Your task to perform on an android device: What's the top post on reddit today? Image 0: 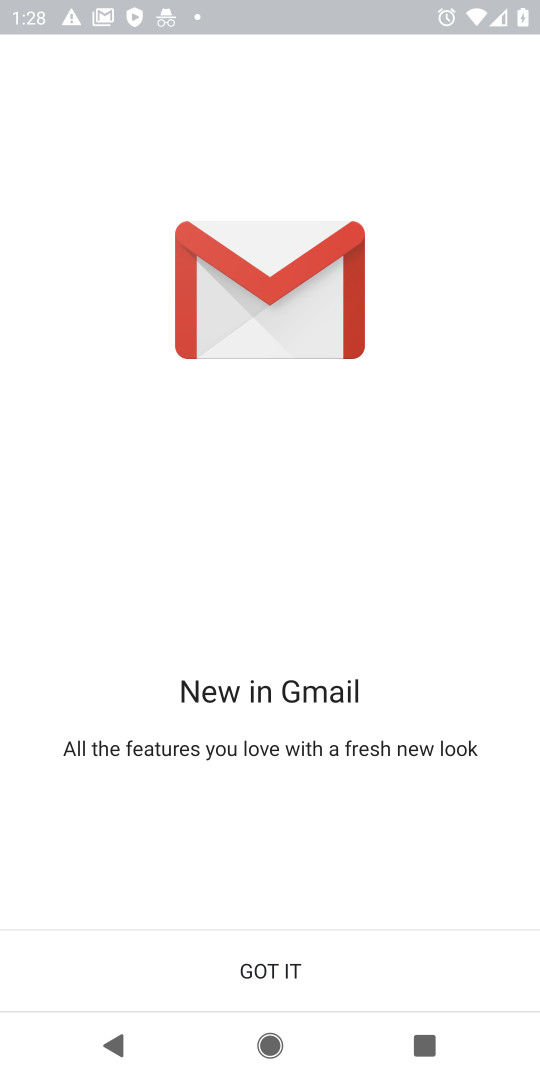
Step 0: press home button
Your task to perform on an android device: What's the top post on reddit today? Image 1: 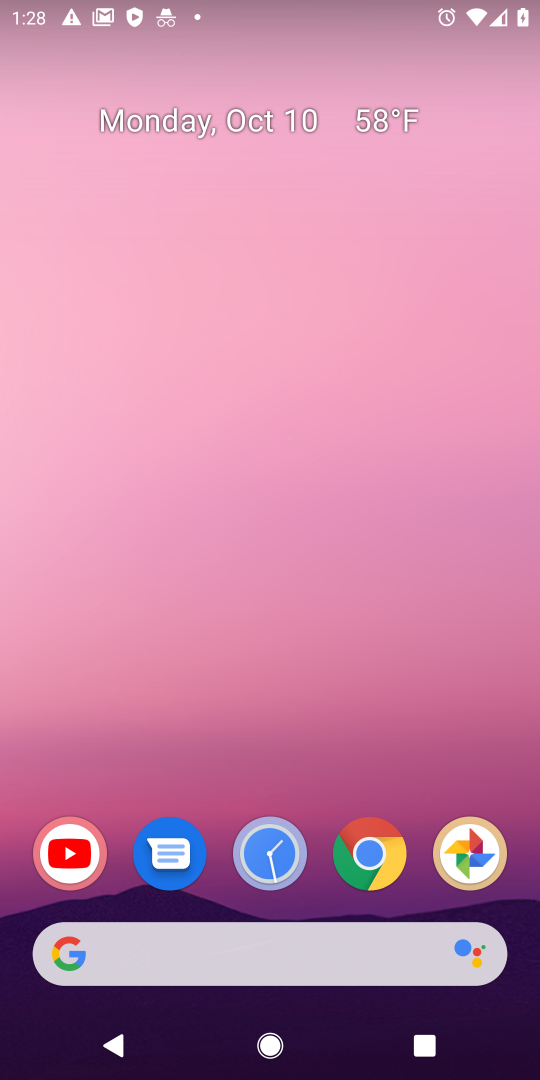
Step 1: click (366, 838)
Your task to perform on an android device: What's the top post on reddit today? Image 2: 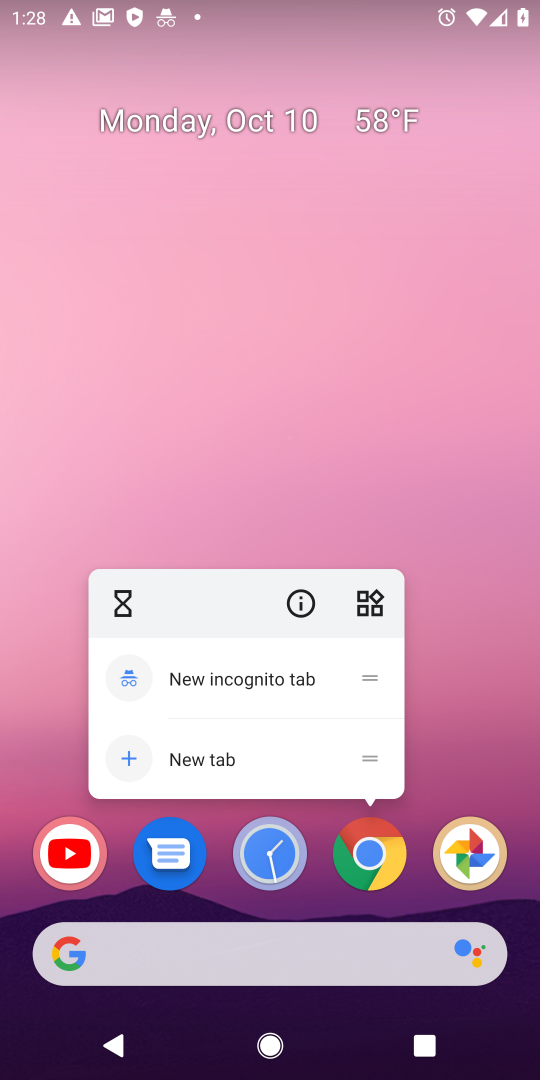
Step 2: click (383, 849)
Your task to perform on an android device: What's the top post on reddit today? Image 3: 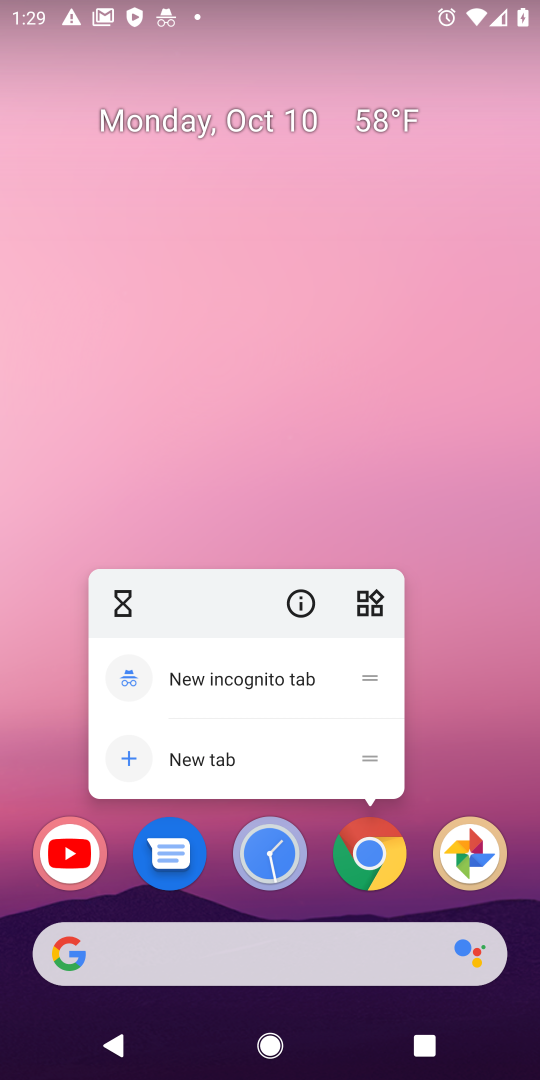
Step 3: click (383, 849)
Your task to perform on an android device: What's the top post on reddit today? Image 4: 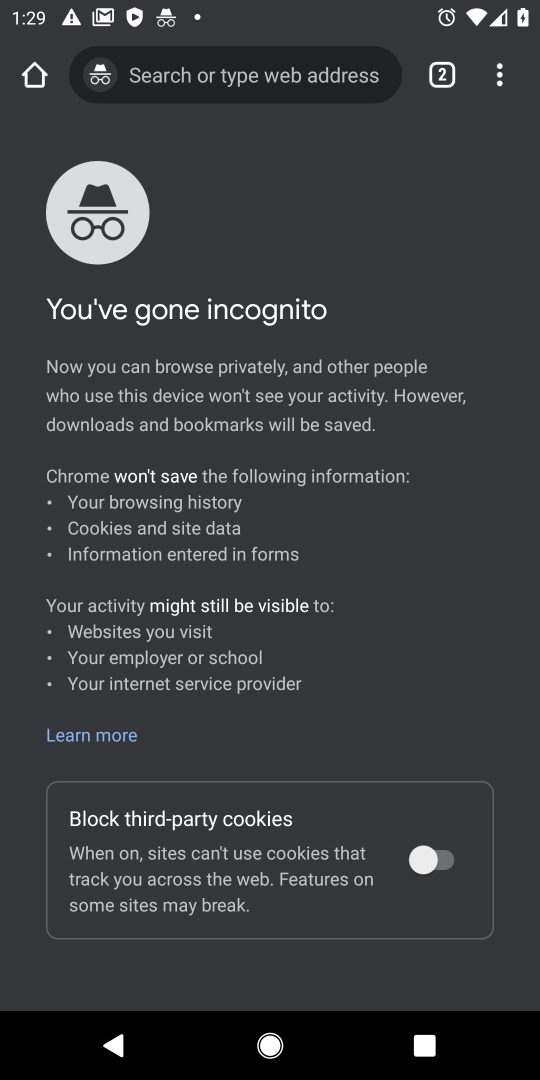
Step 4: click (274, 88)
Your task to perform on an android device: What's the top post on reddit today? Image 5: 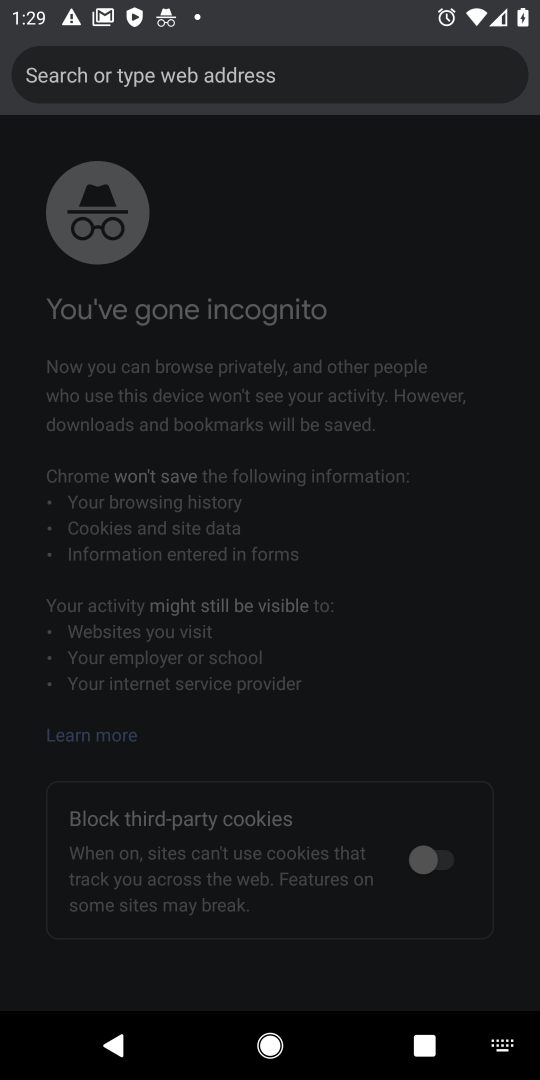
Step 5: type "What's the top post on reddit today?"
Your task to perform on an android device: What's the top post on reddit today? Image 6: 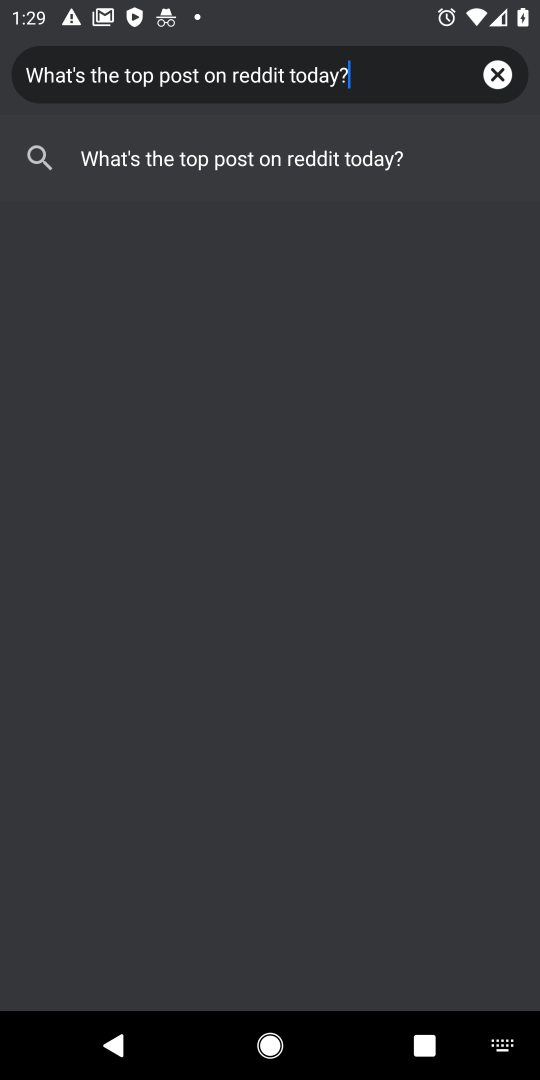
Step 6: press enter
Your task to perform on an android device: What's the top post on reddit today? Image 7: 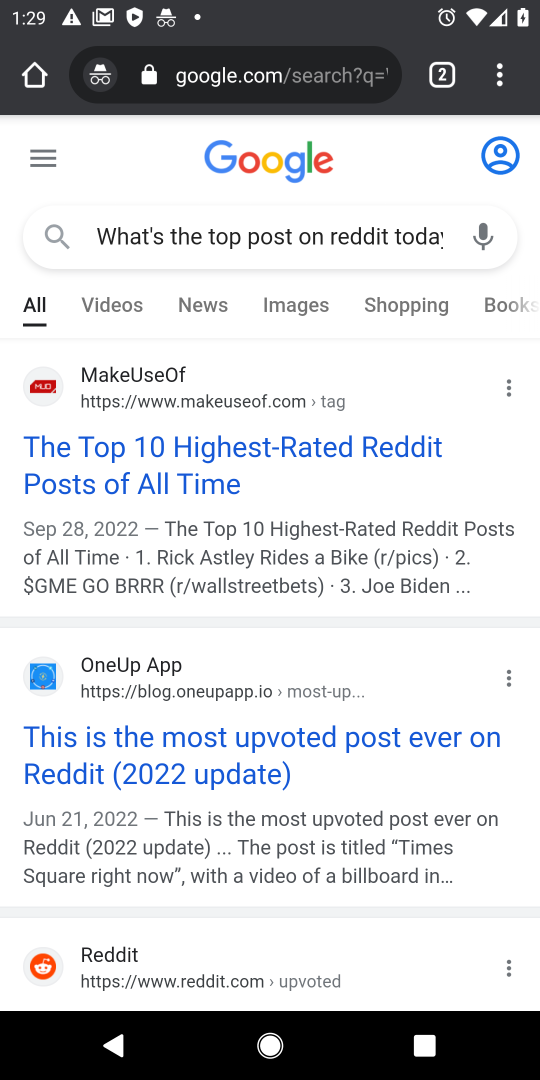
Step 7: click (248, 740)
Your task to perform on an android device: What's the top post on reddit today? Image 8: 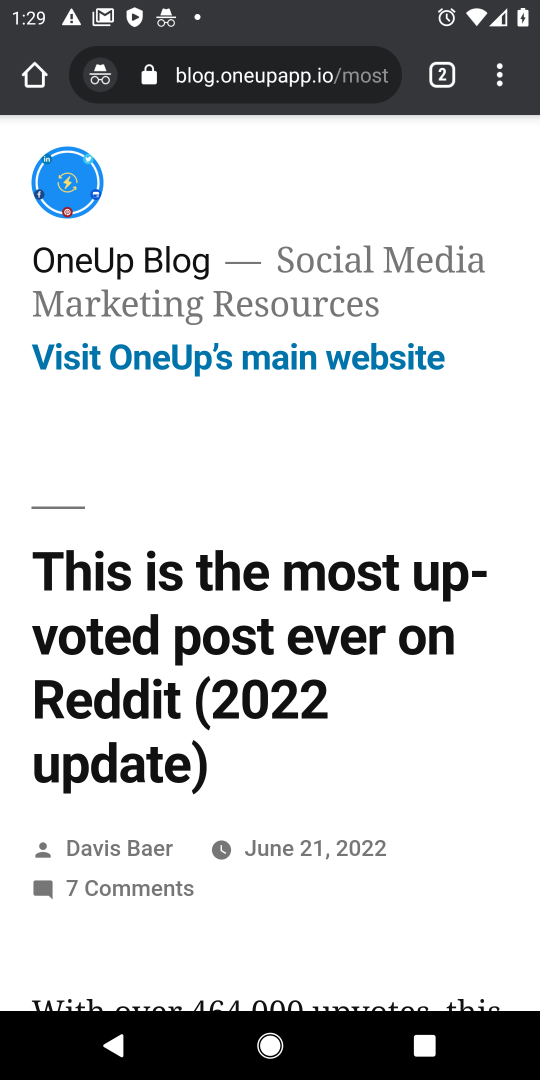
Step 8: task complete